Your task to perform on an android device: Go to Google Image 0: 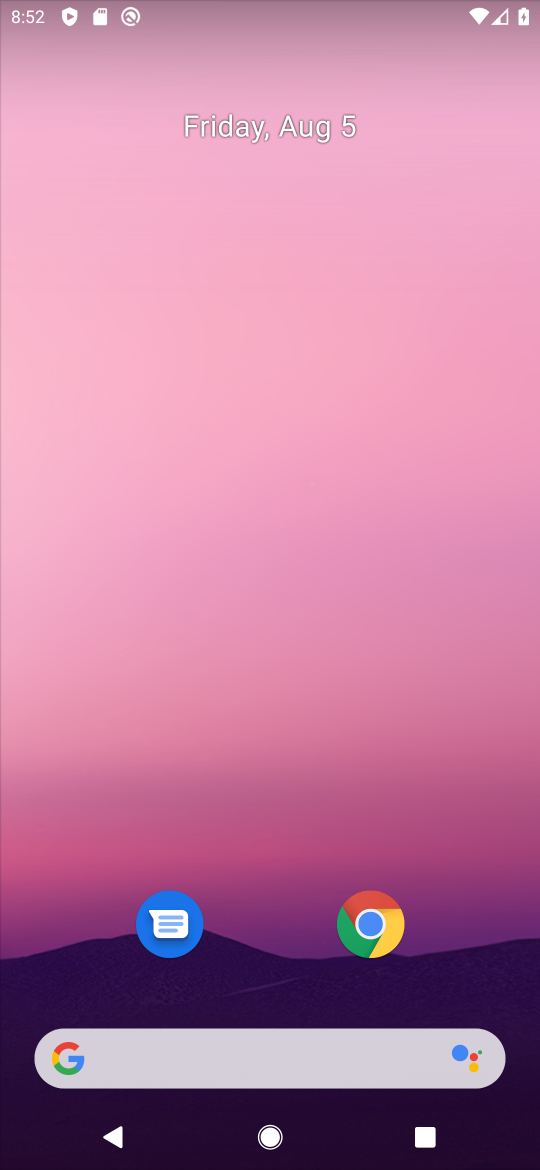
Step 0: click (284, 1065)
Your task to perform on an android device: Go to Google Image 1: 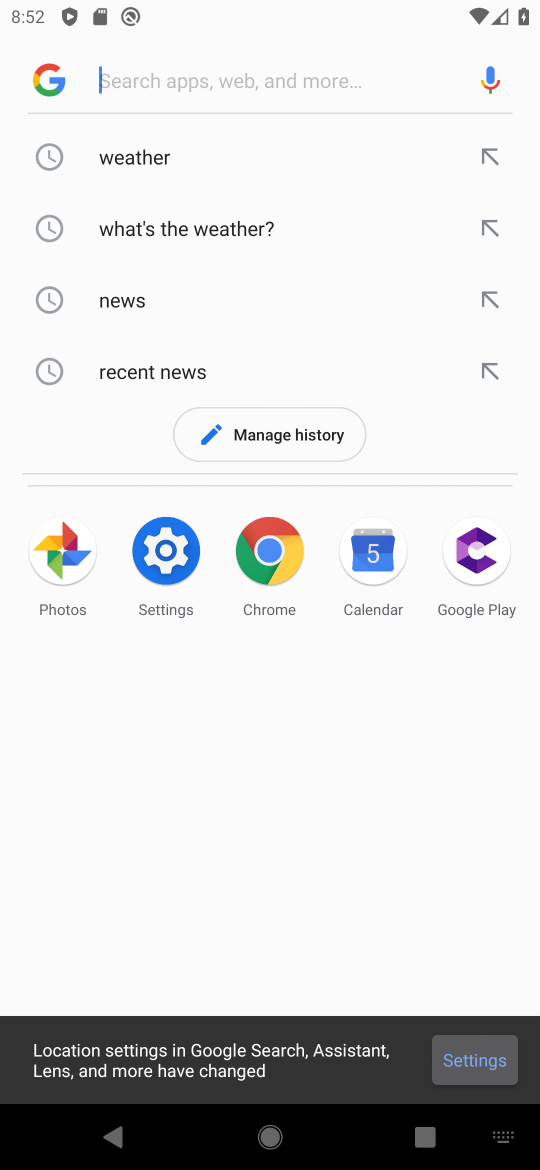
Step 1: task complete